Your task to perform on an android device: Open settings Image 0: 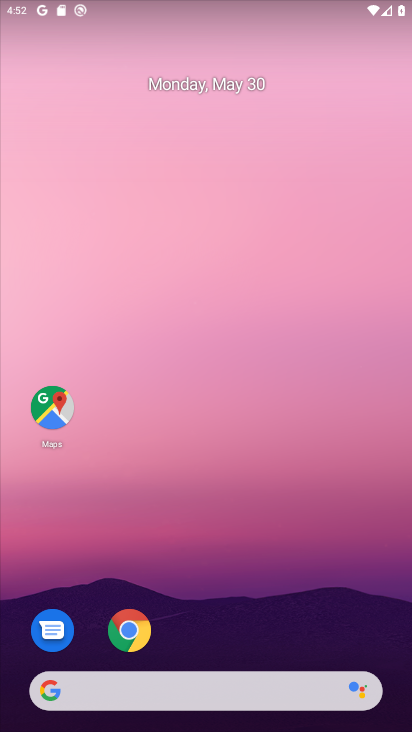
Step 0: press home button
Your task to perform on an android device: Open settings Image 1: 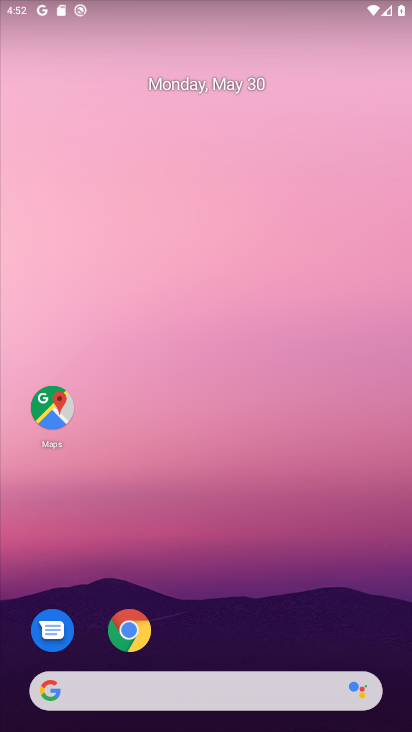
Step 1: drag from (237, 593) to (242, 2)
Your task to perform on an android device: Open settings Image 2: 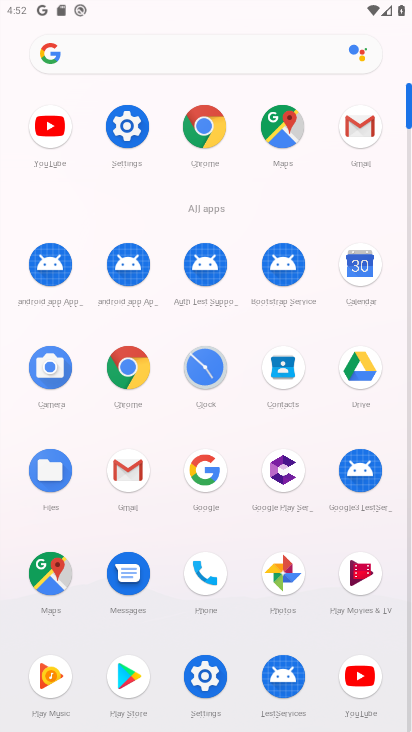
Step 2: click (122, 136)
Your task to perform on an android device: Open settings Image 3: 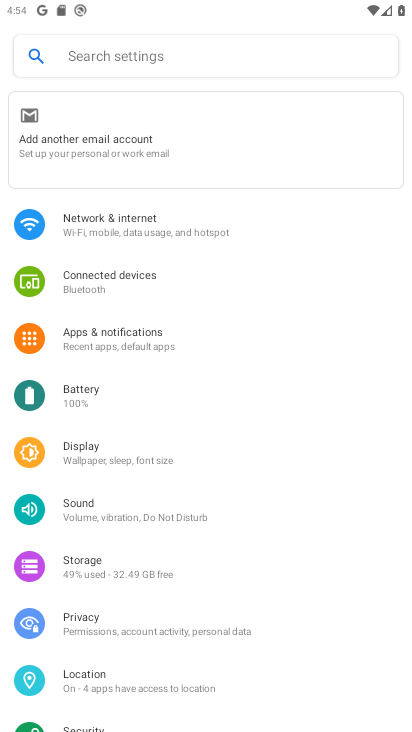
Step 3: task complete